Your task to perform on an android device: Do I have any events this weekend? Image 0: 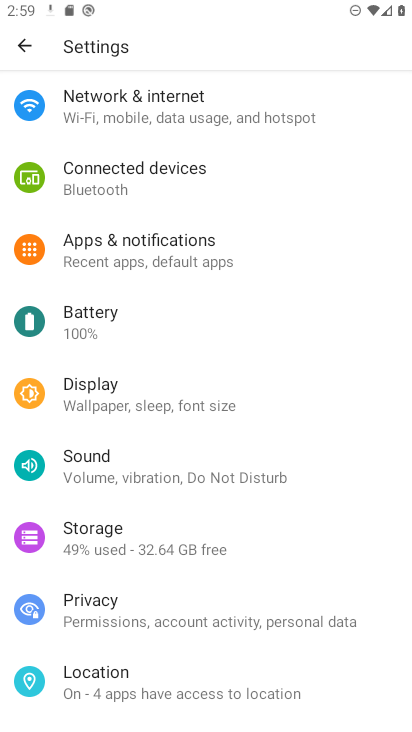
Step 0: press back button
Your task to perform on an android device: Do I have any events this weekend? Image 1: 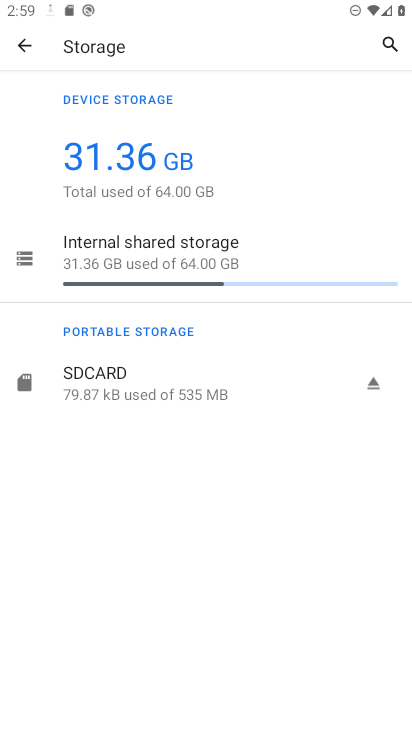
Step 1: press back button
Your task to perform on an android device: Do I have any events this weekend? Image 2: 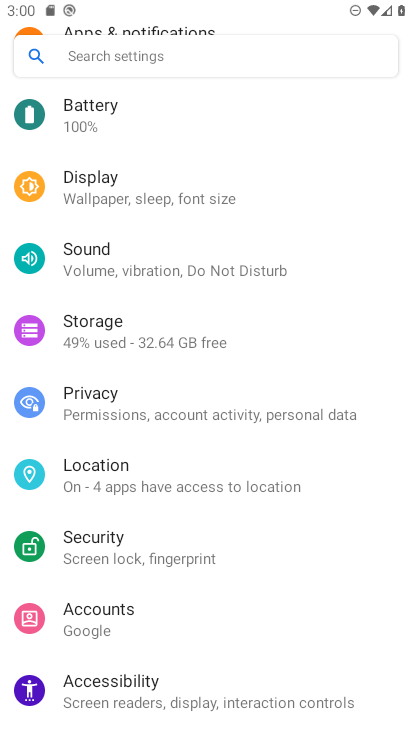
Step 2: press back button
Your task to perform on an android device: Do I have any events this weekend? Image 3: 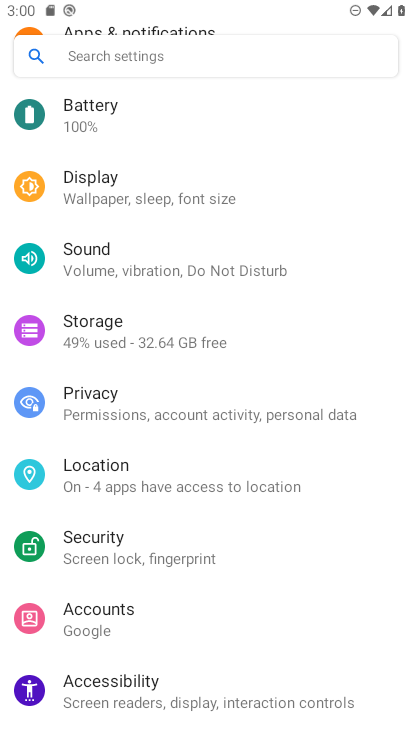
Step 3: press home button
Your task to perform on an android device: Do I have any events this weekend? Image 4: 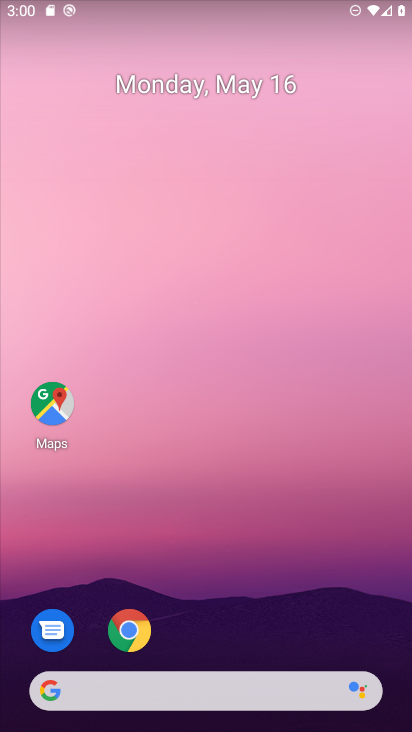
Step 4: drag from (320, 584) to (320, 19)
Your task to perform on an android device: Do I have any events this weekend? Image 5: 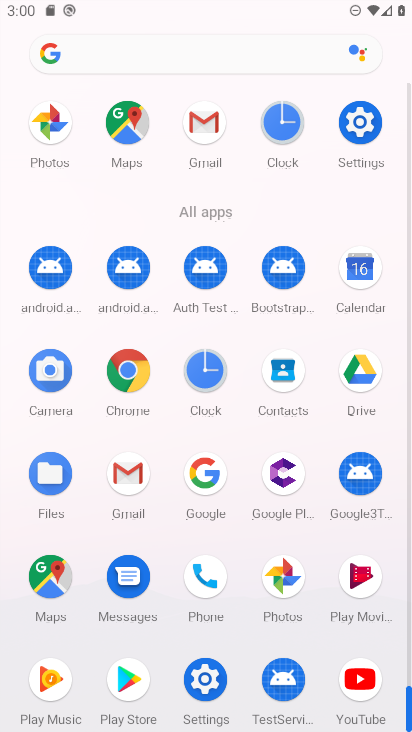
Step 5: drag from (17, 529) to (2, 272)
Your task to perform on an android device: Do I have any events this weekend? Image 6: 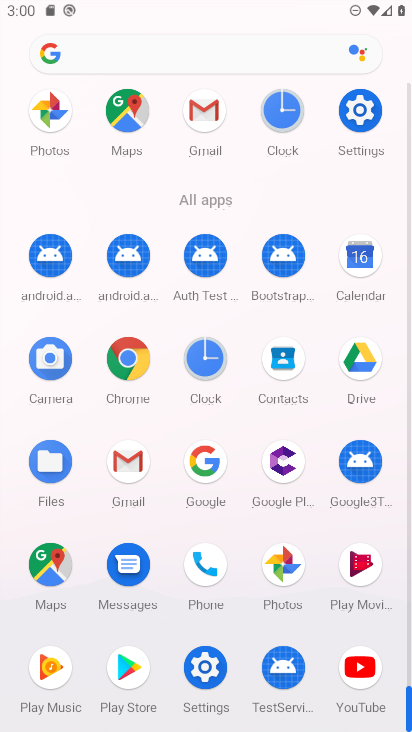
Step 6: drag from (21, 615) to (23, 355)
Your task to perform on an android device: Do I have any events this weekend? Image 7: 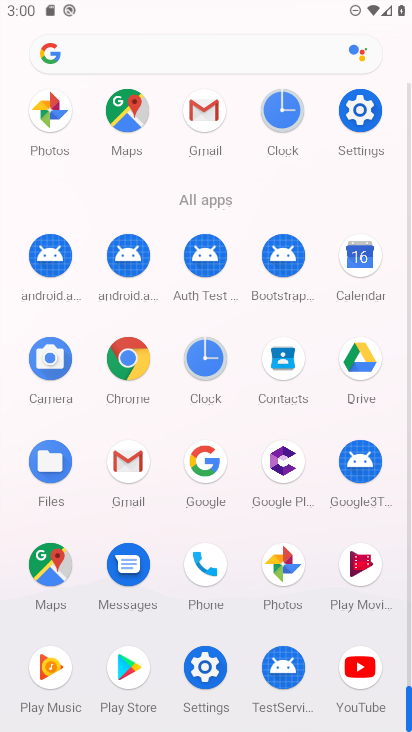
Step 7: drag from (9, 556) to (20, 256)
Your task to perform on an android device: Do I have any events this weekend? Image 8: 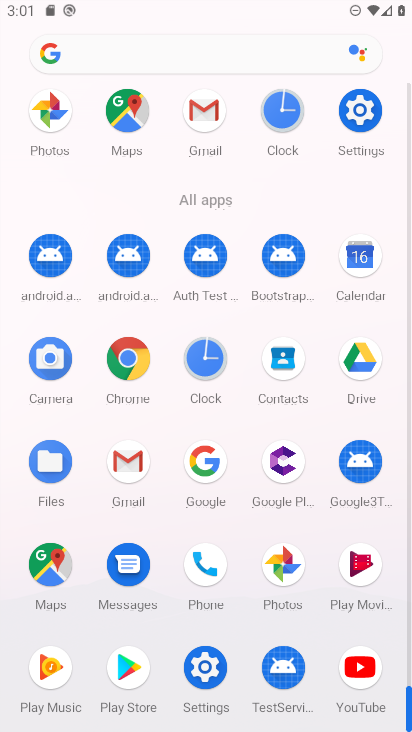
Step 8: click (356, 255)
Your task to perform on an android device: Do I have any events this weekend? Image 9: 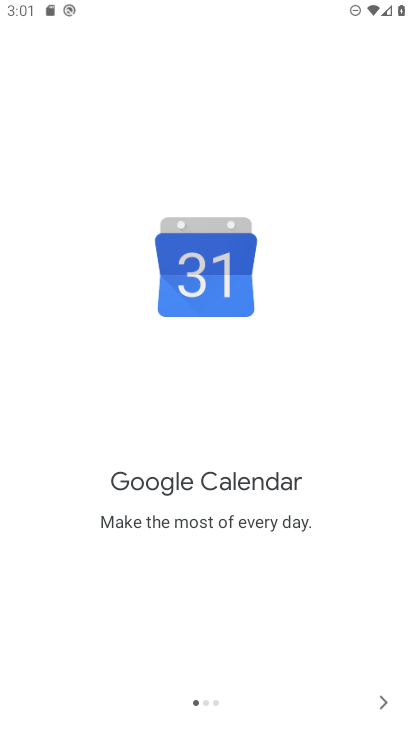
Step 9: click (380, 697)
Your task to perform on an android device: Do I have any events this weekend? Image 10: 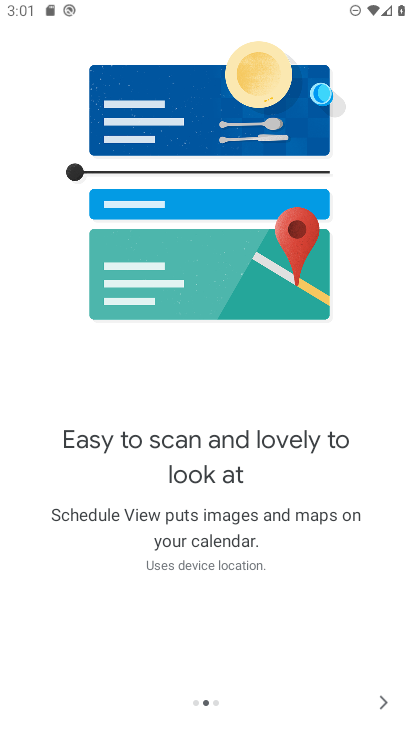
Step 10: click (380, 697)
Your task to perform on an android device: Do I have any events this weekend? Image 11: 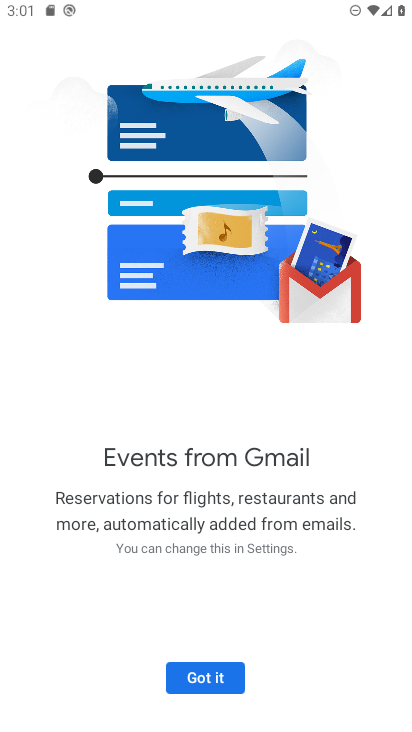
Step 11: click (230, 680)
Your task to perform on an android device: Do I have any events this weekend? Image 12: 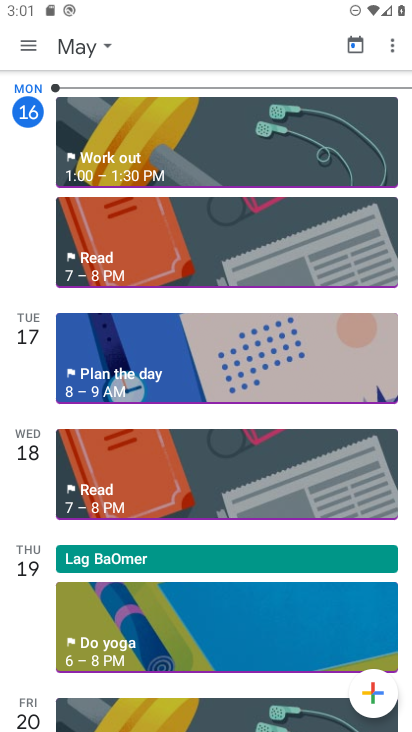
Step 12: click (43, 39)
Your task to perform on an android device: Do I have any events this weekend? Image 13: 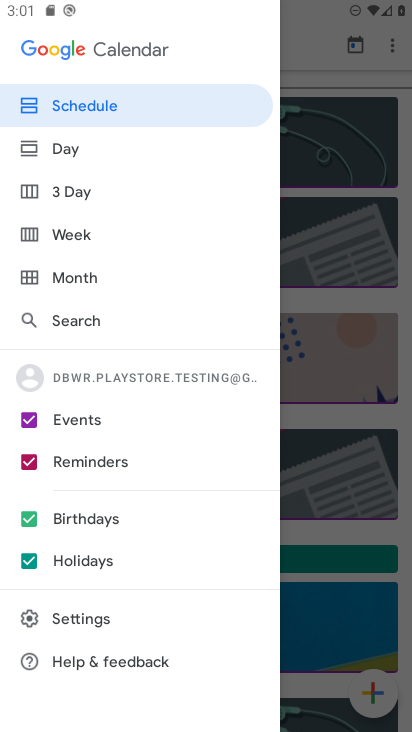
Step 13: click (107, 236)
Your task to perform on an android device: Do I have any events this weekend? Image 14: 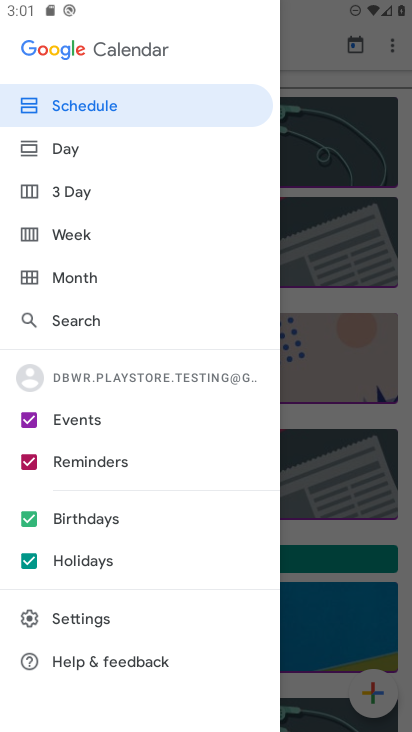
Step 14: click (88, 230)
Your task to perform on an android device: Do I have any events this weekend? Image 15: 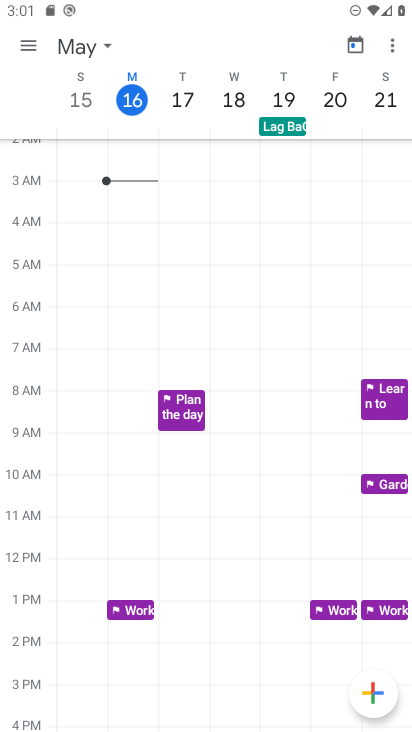
Step 15: click (378, 91)
Your task to perform on an android device: Do I have any events this weekend? Image 16: 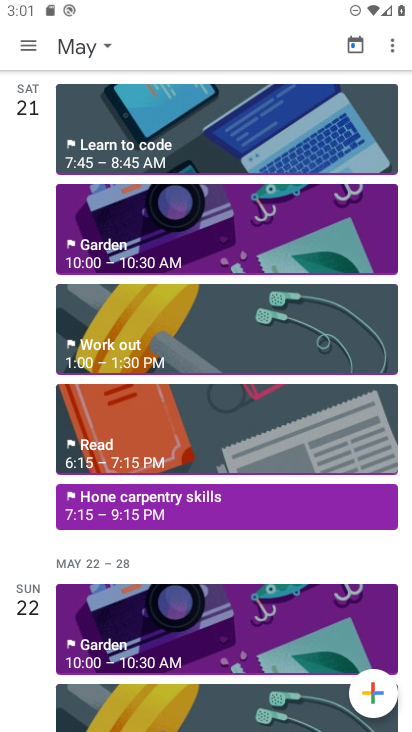
Step 16: task complete